Your task to perform on an android device: add a contact in the contacts app Image 0: 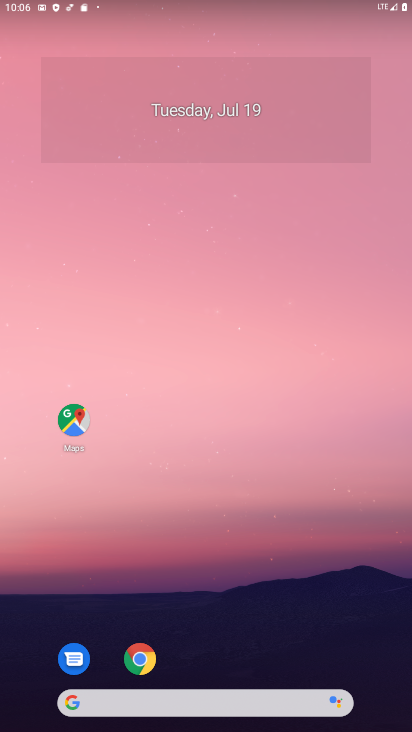
Step 0: drag from (197, 624) to (289, 199)
Your task to perform on an android device: add a contact in the contacts app Image 1: 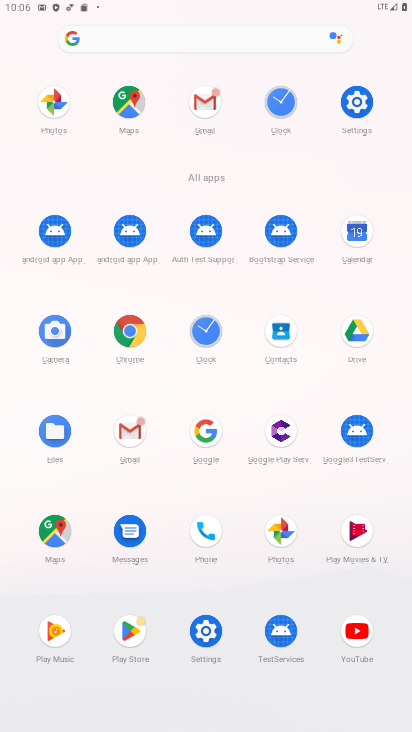
Step 1: click (274, 337)
Your task to perform on an android device: add a contact in the contacts app Image 2: 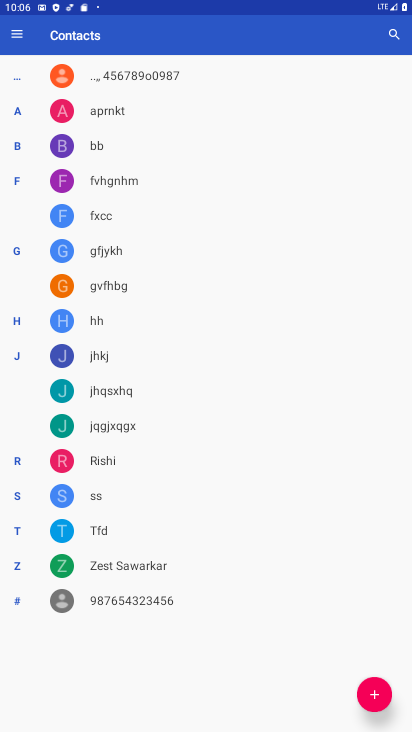
Step 2: click (369, 696)
Your task to perform on an android device: add a contact in the contacts app Image 3: 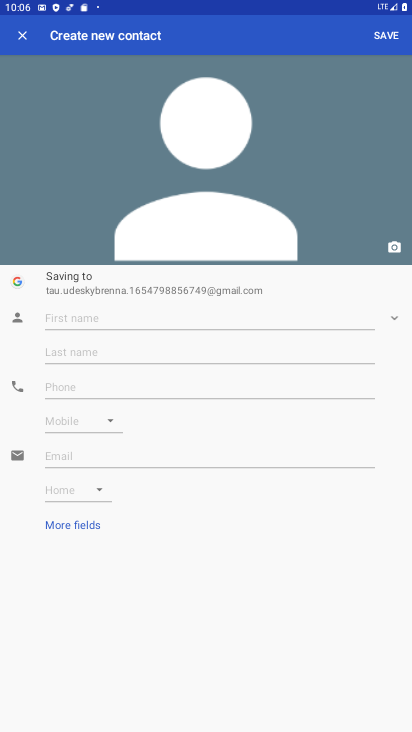
Step 3: click (138, 324)
Your task to perform on an android device: add a contact in the contacts app Image 4: 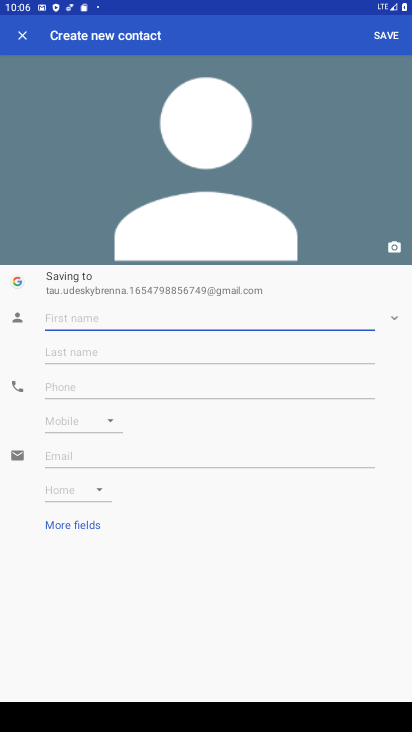
Step 4: type "asdf"
Your task to perform on an android device: add a contact in the contacts app Image 5: 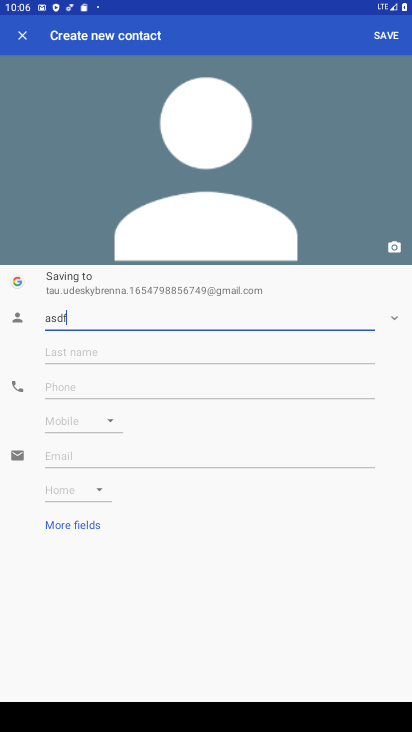
Step 5: type ""
Your task to perform on an android device: add a contact in the contacts app Image 6: 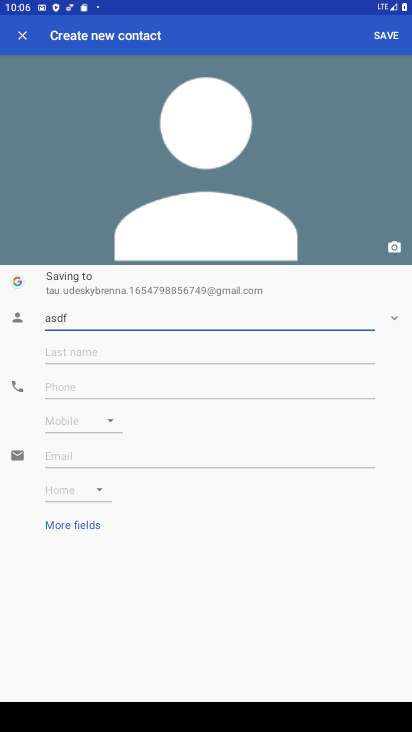
Step 6: press enter
Your task to perform on an android device: add a contact in the contacts app Image 7: 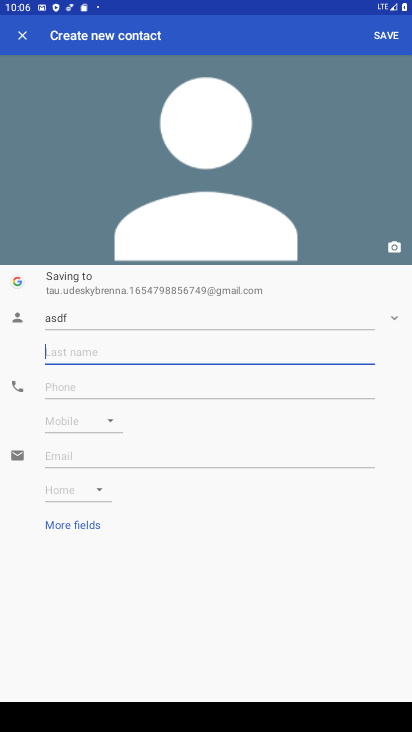
Step 7: click (105, 388)
Your task to perform on an android device: add a contact in the contacts app Image 8: 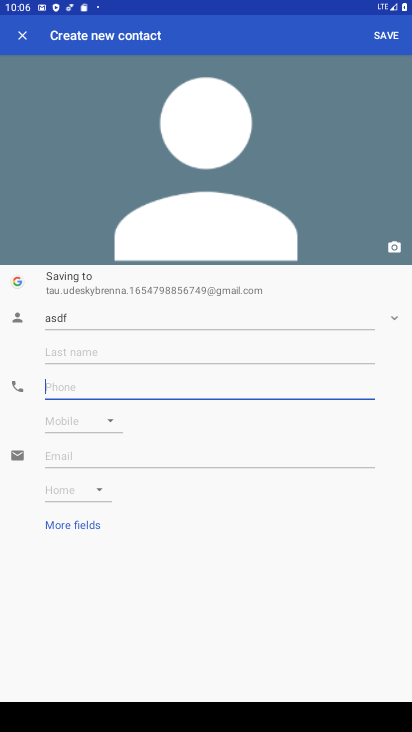
Step 8: type "245547564534"
Your task to perform on an android device: add a contact in the contacts app Image 9: 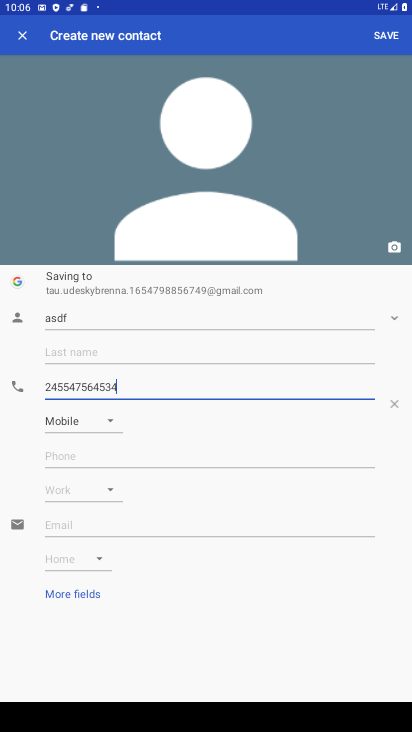
Step 9: type ""
Your task to perform on an android device: add a contact in the contacts app Image 10: 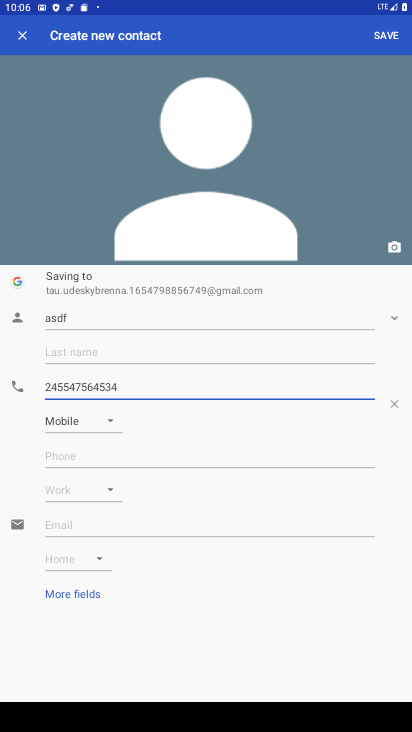
Step 10: press enter
Your task to perform on an android device: add a contact in the contacts app Image 11: 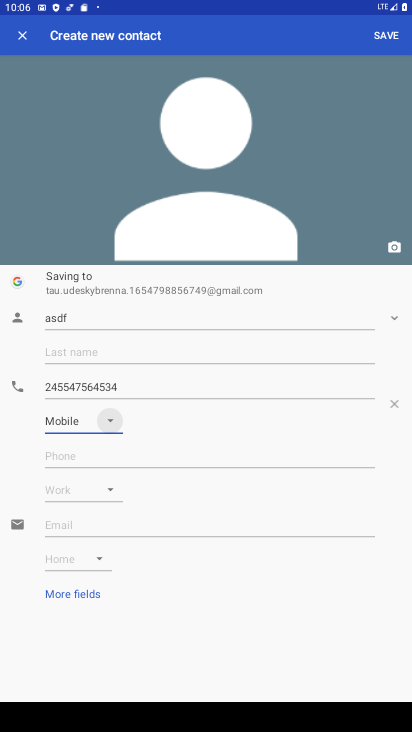
Step 11: click (386, 36)
Your task to perform on an android device: add a contact in the contacts app Image 12: 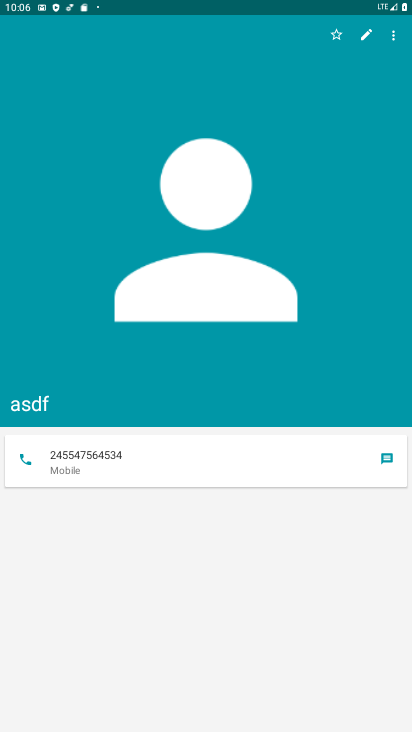
Step 12: task complete